Your task to perform on an android device: search for starred emails in the gmail app Image 0: 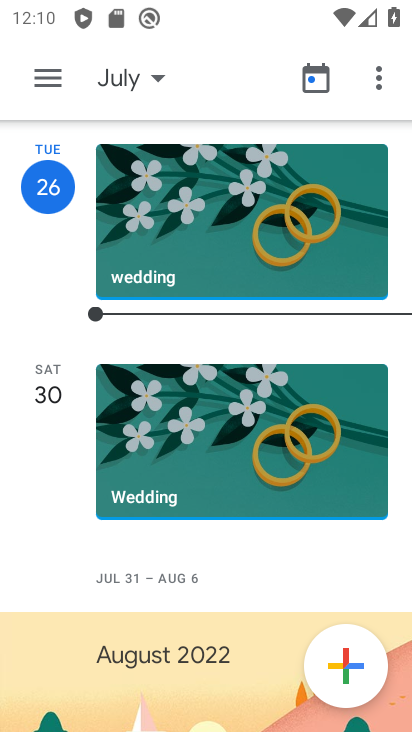
Step 0: press back button
Your task to perform on an android device: search for starred emails in the gmail app Image 1: 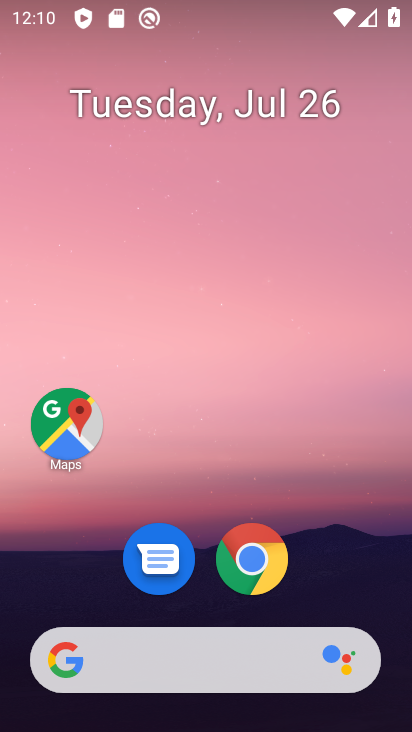
Step 1: drag from (332, 594) to (366, 34)
Your task to perform on an android device: search for starred emails in the gmail app Image 2: 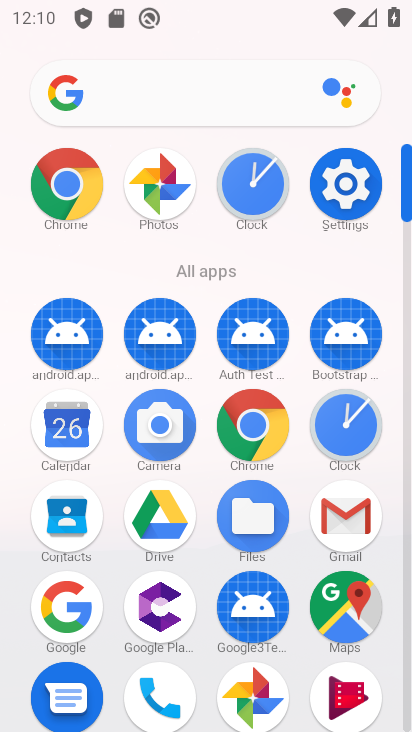
Step 2: click (333, 515)
Your task to perform on an android device: search for starred emails in the gmail app Image 3: 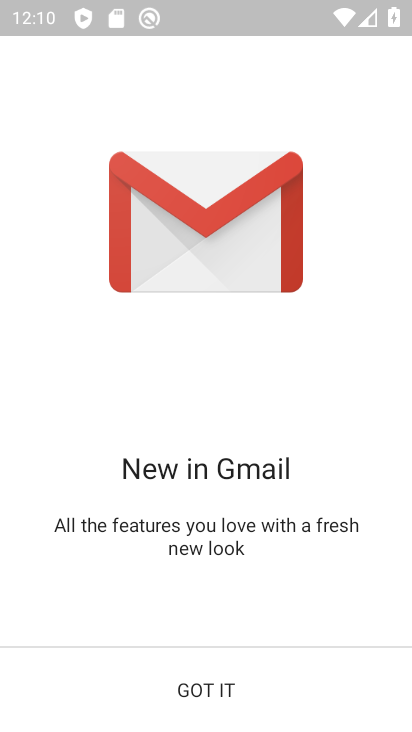
Step 3: click (190, 702)
Your task to perform on an android device: search for starred emails in the gmail app Image 4: 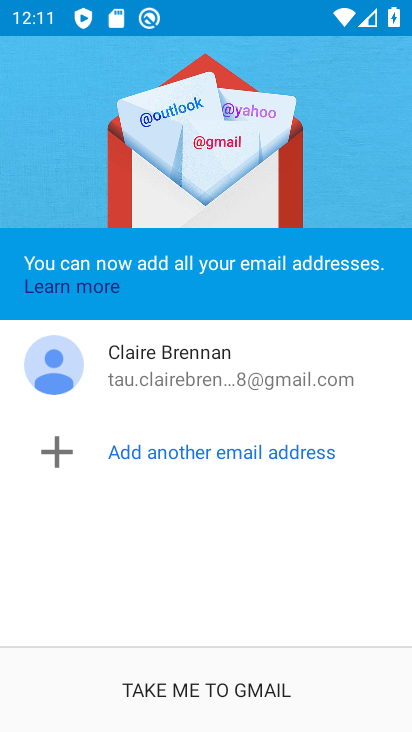
Step 4: click (214, 685)
Your task to perform on an android device: search for starred emails in the gmail app Image 5: 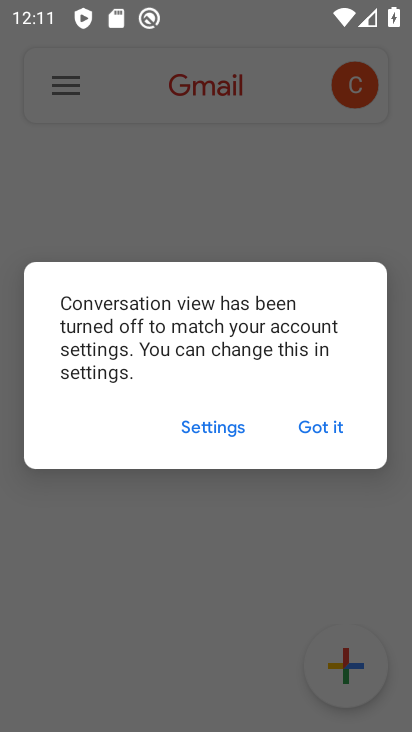
Step 5: click (339, 417)
Your task to perform on an android device: search for starred emails in the gmail app Image 6: 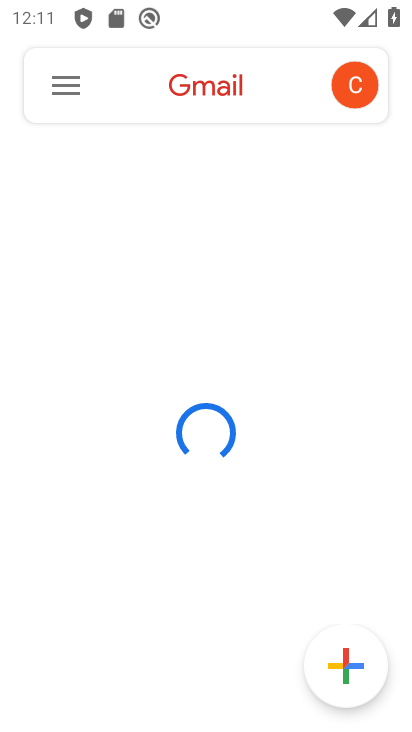
Step 6: click (62, 77)
Your task to perform on an android device: search for starred emails in the gmail app Image 7: 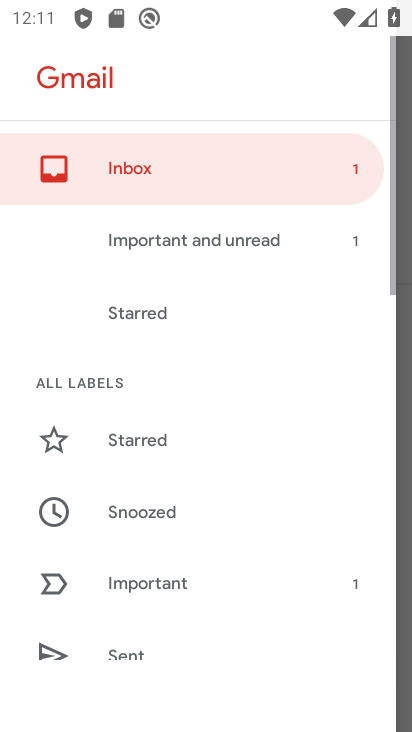
Step 7: click (163, 440)
Your task to perform on an android device: search for starred emails in the gmail app Image 8: 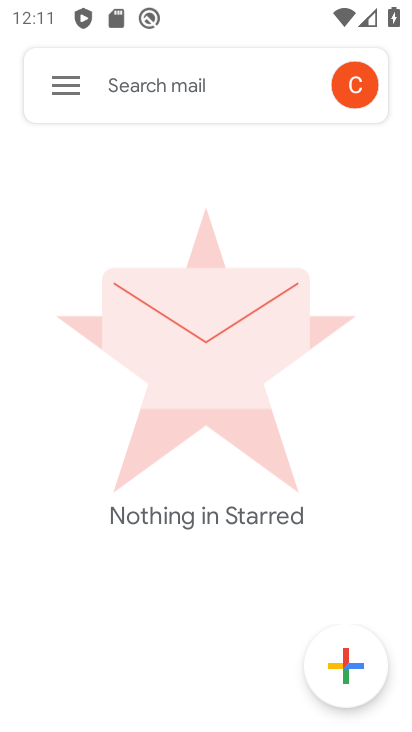
Step 8: task complete